Your task to perform on an android device: What's on my calendar today? Image 0: 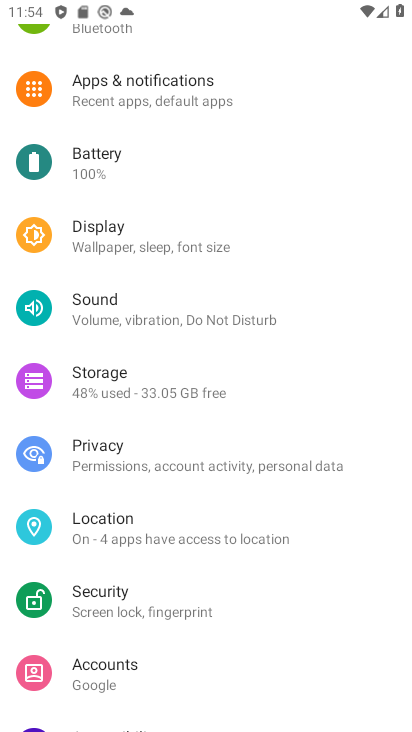
Step 0: press home button
Your task to perform on an android device: What's on my calendar today? Image 1: 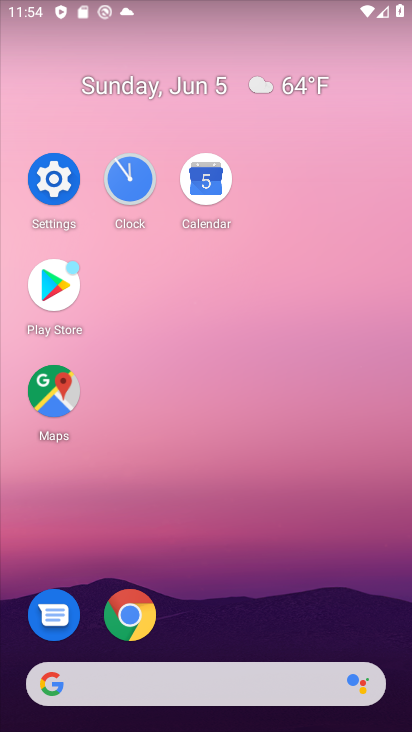
Step 1: click (214, 179)
Your task to perform on an android device: What's on my calendar today? Image 2: 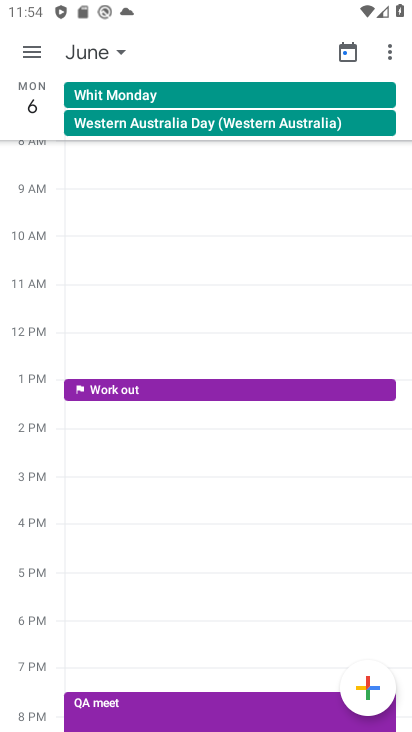
Step 2: drag from (57, 103) to (164, 588)
Your task to perform on an android device: What's on my calendar today? Image 3: 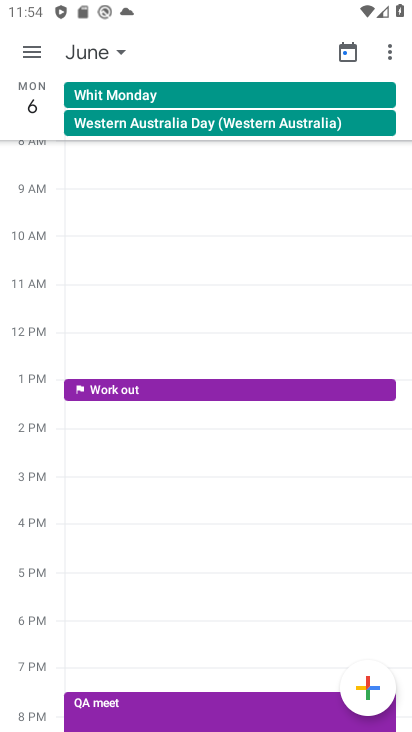
Step 3: drag from (13, 116) to (411, 269)
Your task to perform on an android device: What's on my calendar today? Image 4: 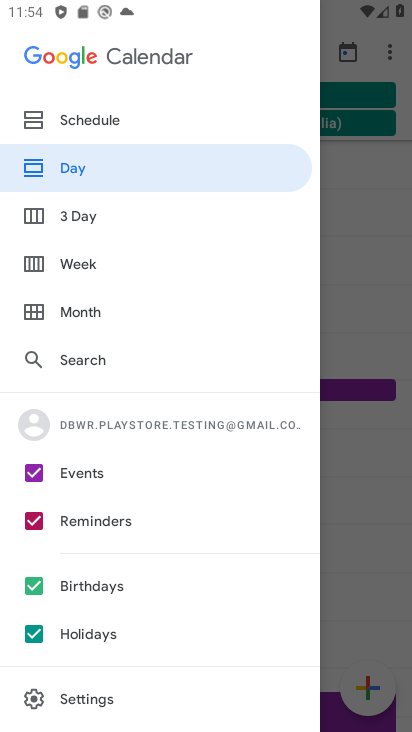
Step 4: click (408, 436)
Your task to perform on an android device: What's on my calendar today? Image 5: 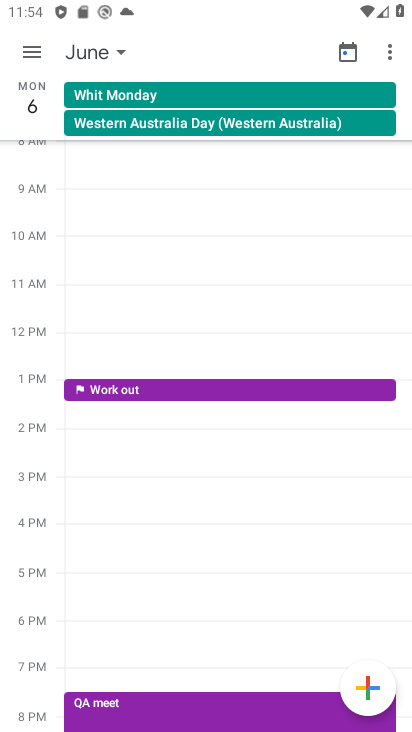
Step 5: drag from (6, 92) to (405, 101)
Your task to perform on an android device: What's on my calendar today? Image 6: 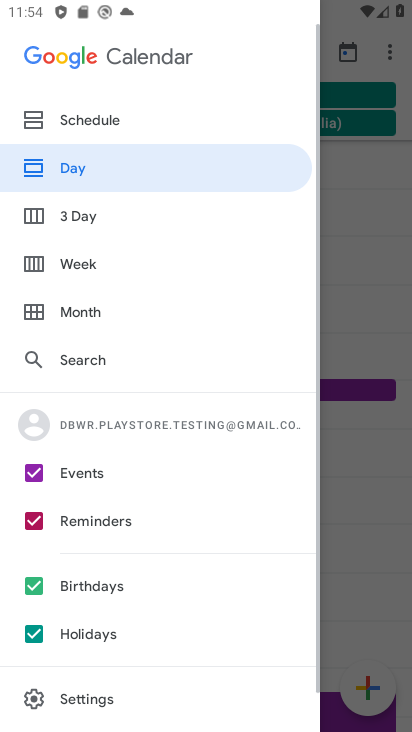
Step 6: click (405, 252)
Your task to perform on an android device: What's on my calendar today? Image 7: 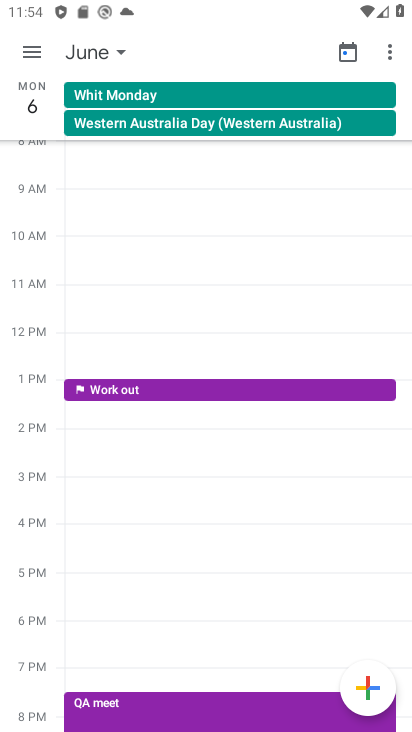
Step 7: task complete